Your task to perform on an android device: Go to wifi settings Image 0: 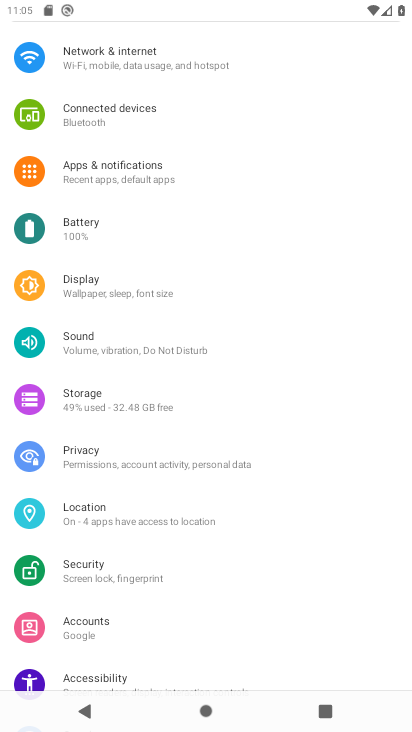
Step 0: press home button
Your task to perform on an android device: Go to wifi settings Image 1: 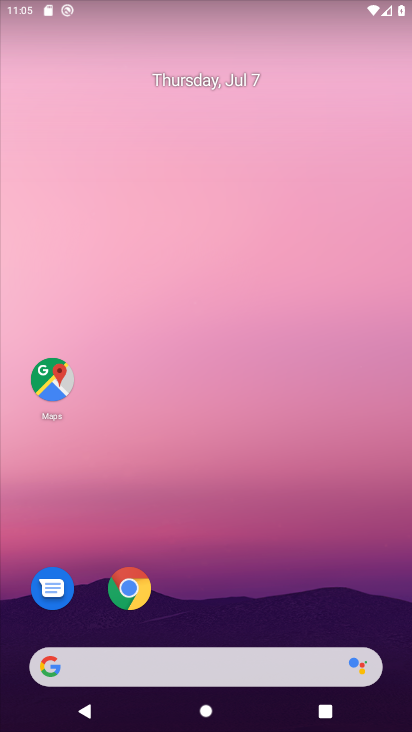
Step 1: drag from (211, 664) to (313, 119)
Your task to perform on an android device: Go to wifi settings Image 2: 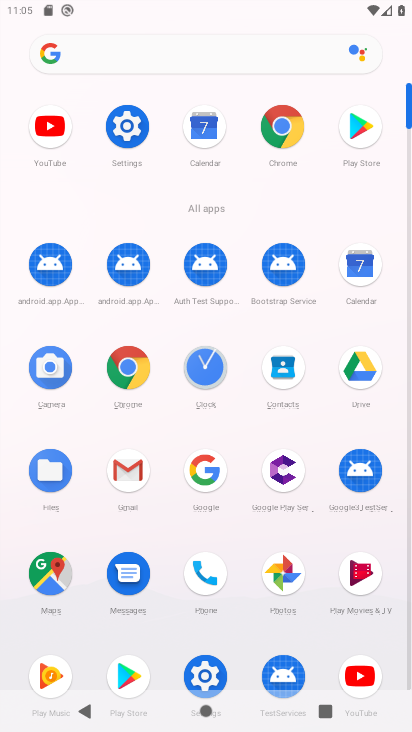
Step 2: click (134, 125)
Your task to perform on an android device: Go to wifi settings Image 3: 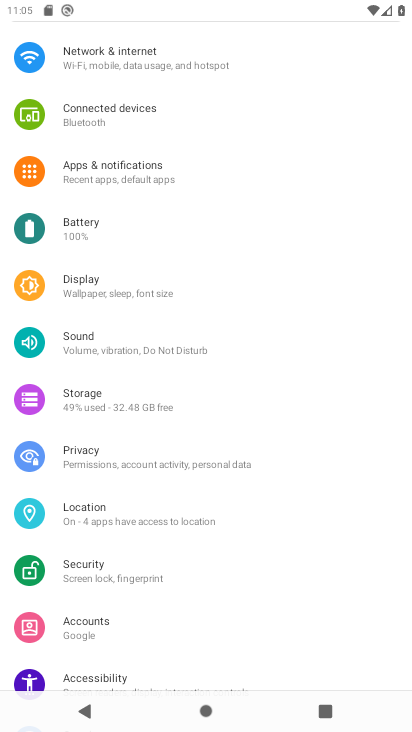
Step 3: click (154, 51)
Your task to perform on an android device: Go to wifi settings Image 4: 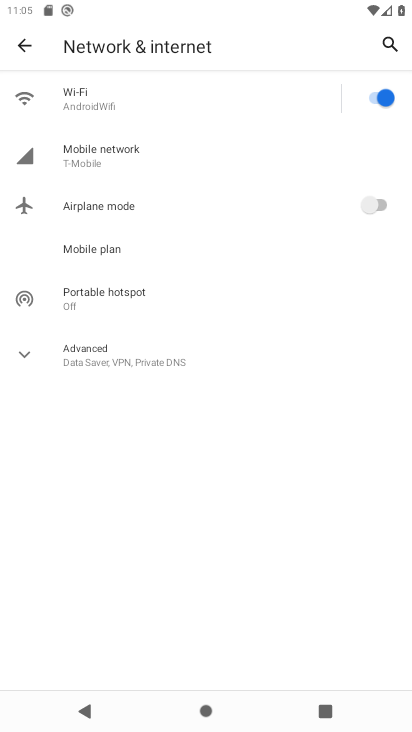
Step 4: click (122, 99)
Your task to perform on an android device: Go to wifi settings Image 5: 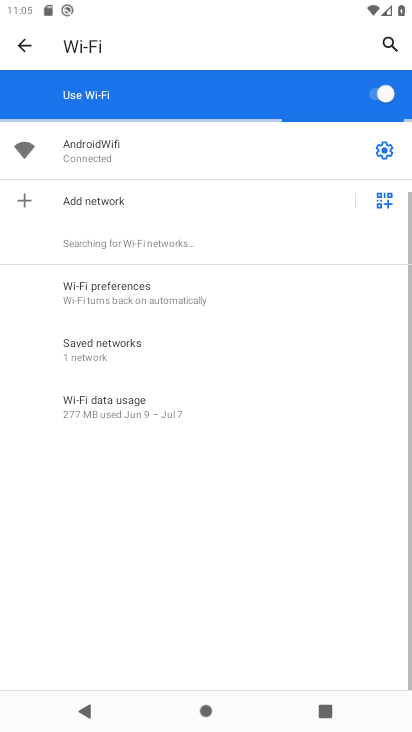
Step 5: task complete